Your task to perform on an android device: read, delete, or share a saved page in the chrome app Image 0: 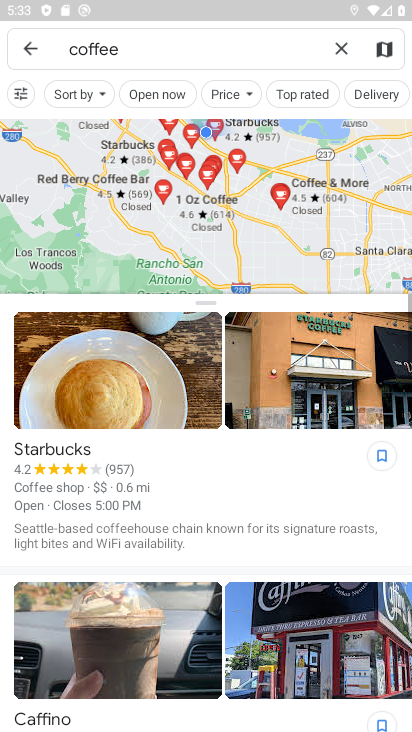
Step 0: press home button
Your task to perform on an android device: read, delete, or share a saved page in the chrome app Image 1: 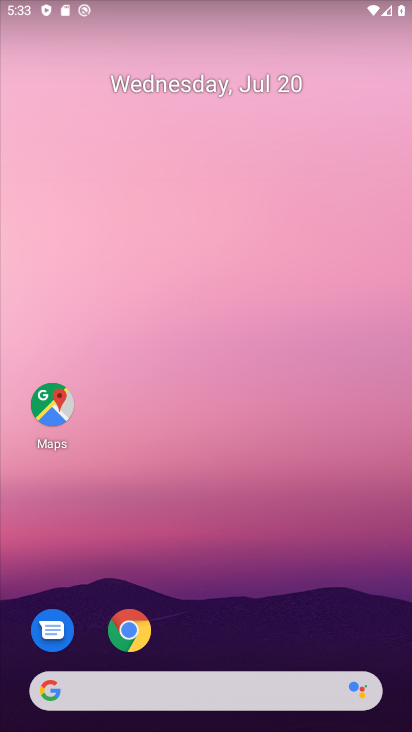
Step 1: drag from (238, 599) to (282, 132)
Your task to perform on an android device: read, delete, or share a saved page in the chrome app Image 2: 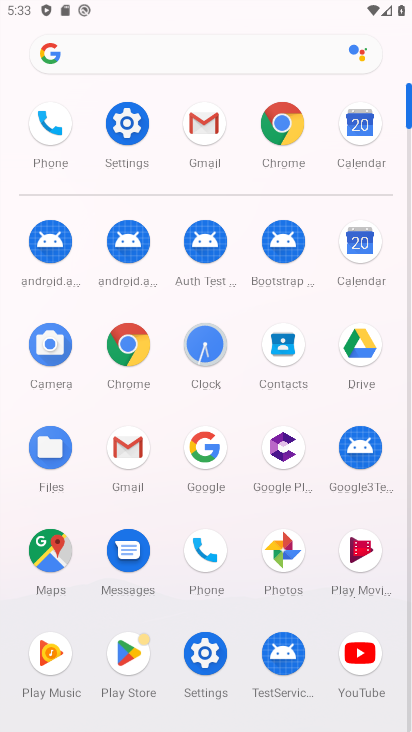
Step 2: click (128, 345)
Your task to perform on an android device: read, delete, or share a saved page in the chrome app Image 3: 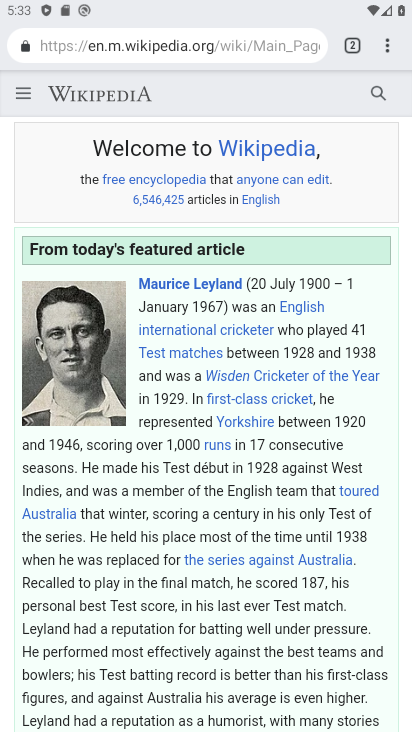
Step 3: task complete